Your task to perform on an android device: turn off location history Image 0: 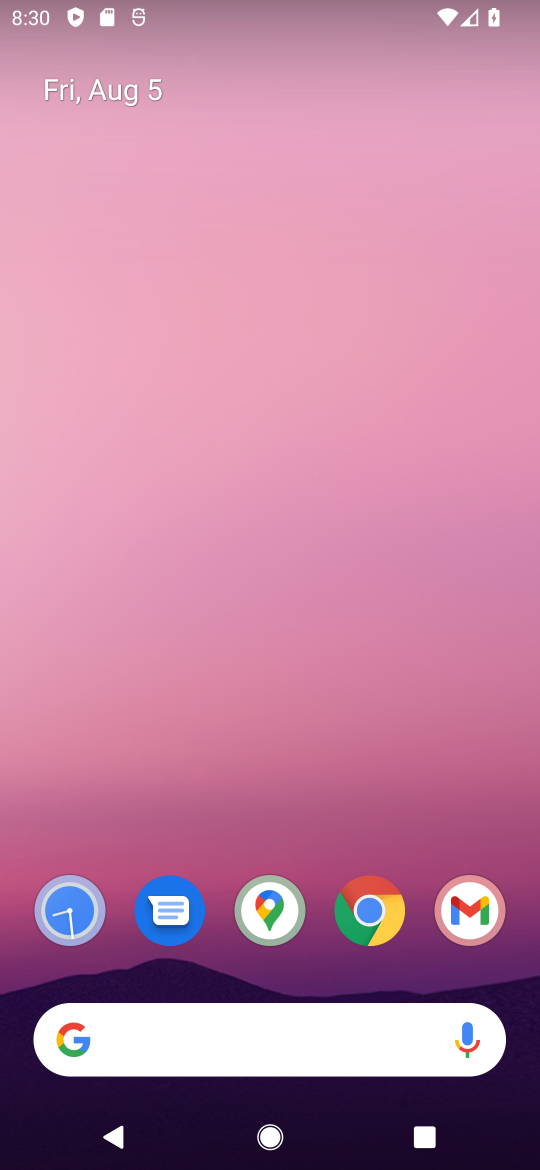
Step 0: drag from (252, 1026) to (529, 88)
Your task to perform on an android device: turn off location history Image 1: 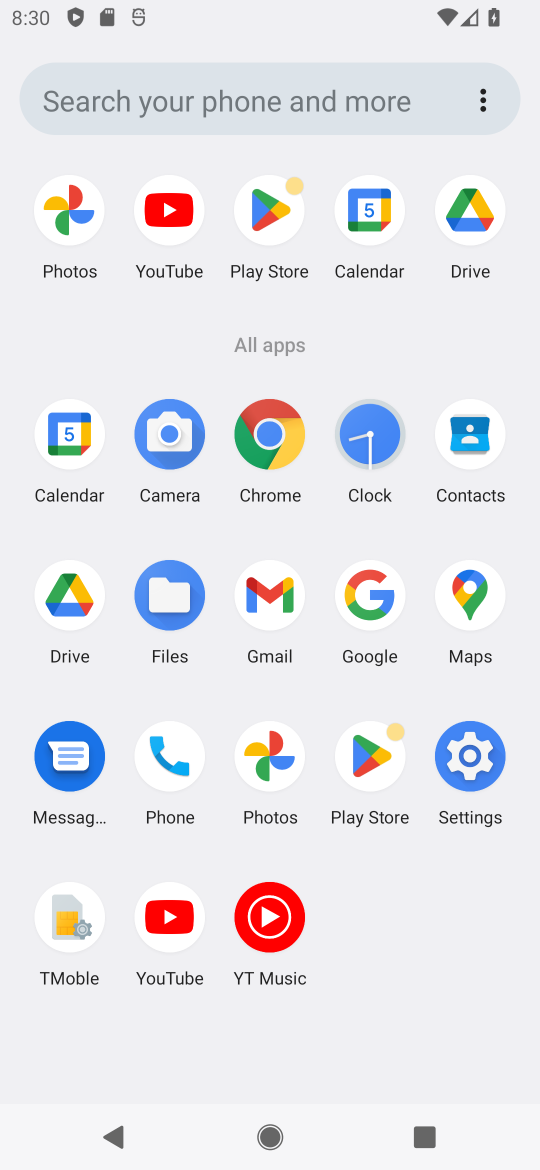
Step 1: click (486, 773)
Your task to perform on an android device: turn off location history Image 2: 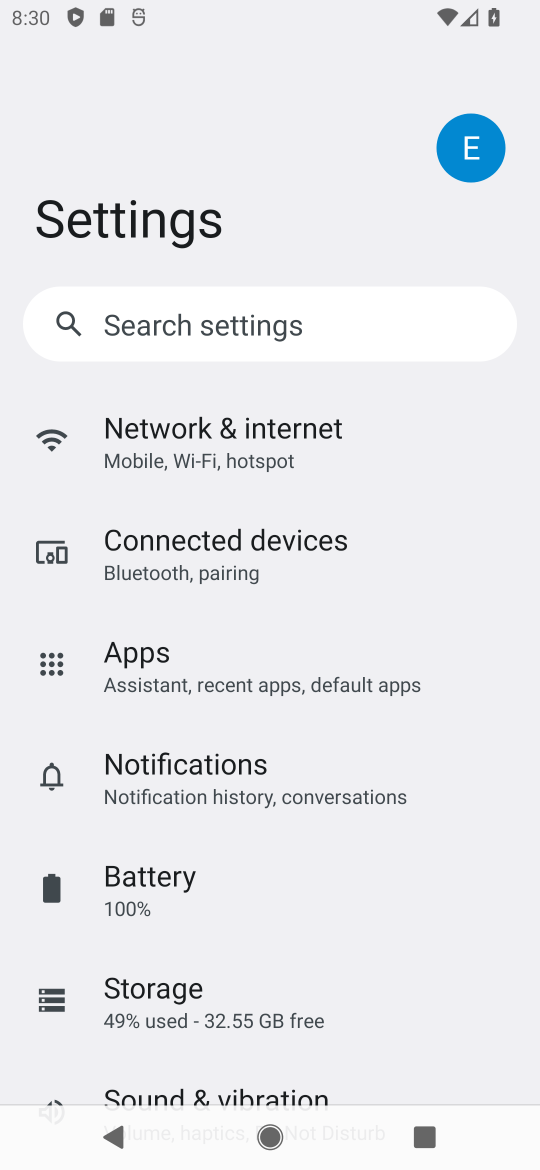
Step 2: drag from (317, 781) to (488, 109)
Your task to perform on an android device: turn off location history Image 3: 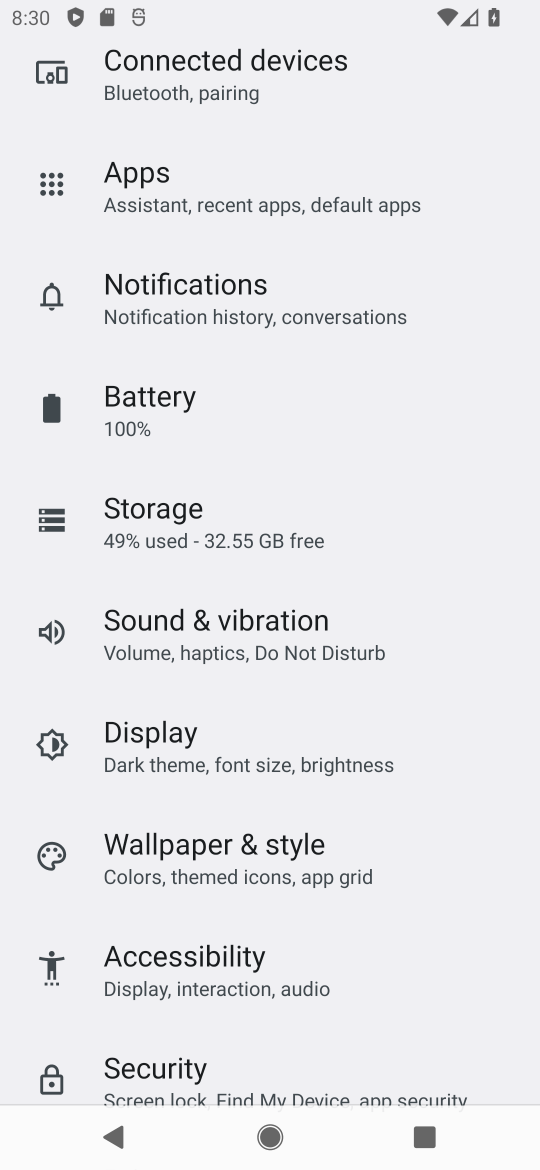
Step 3: drag from (370, 1025) to (478, 147)
Your task to perform on an android device: turn off location history Image 4: 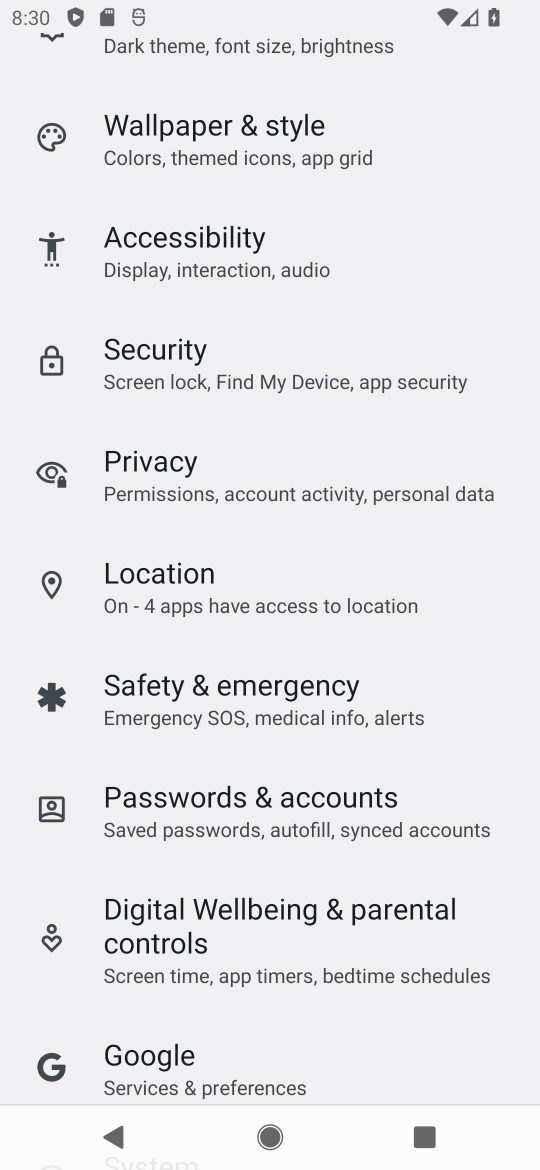
Step 4: click (189, 598)
Your task to perform on an android device: turn off location history Image 5: 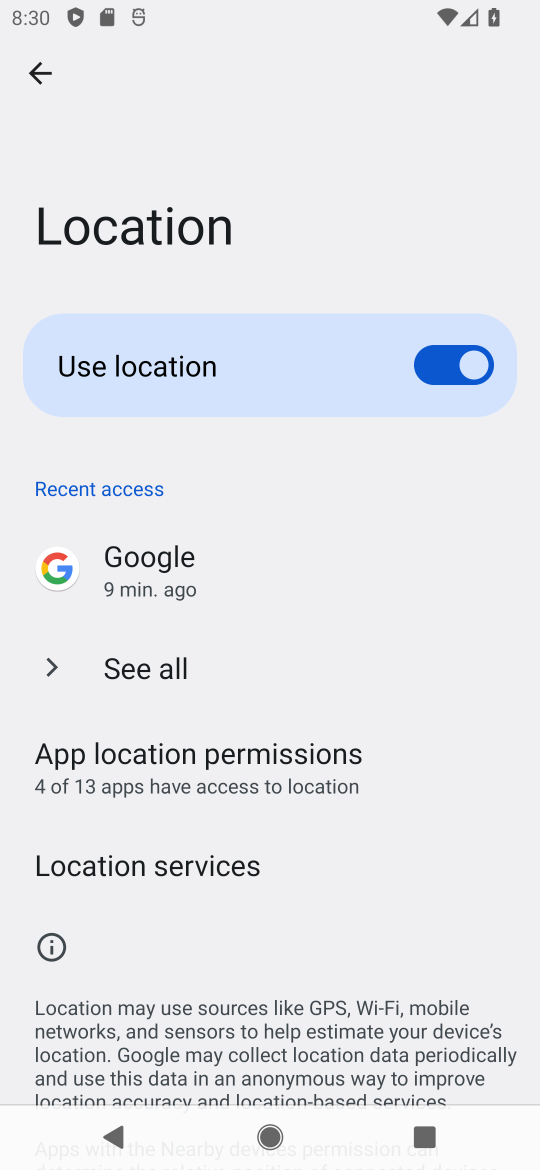
Step 5: click (442, 369)
Your task to perform on an android device: turn off location history Image 6: 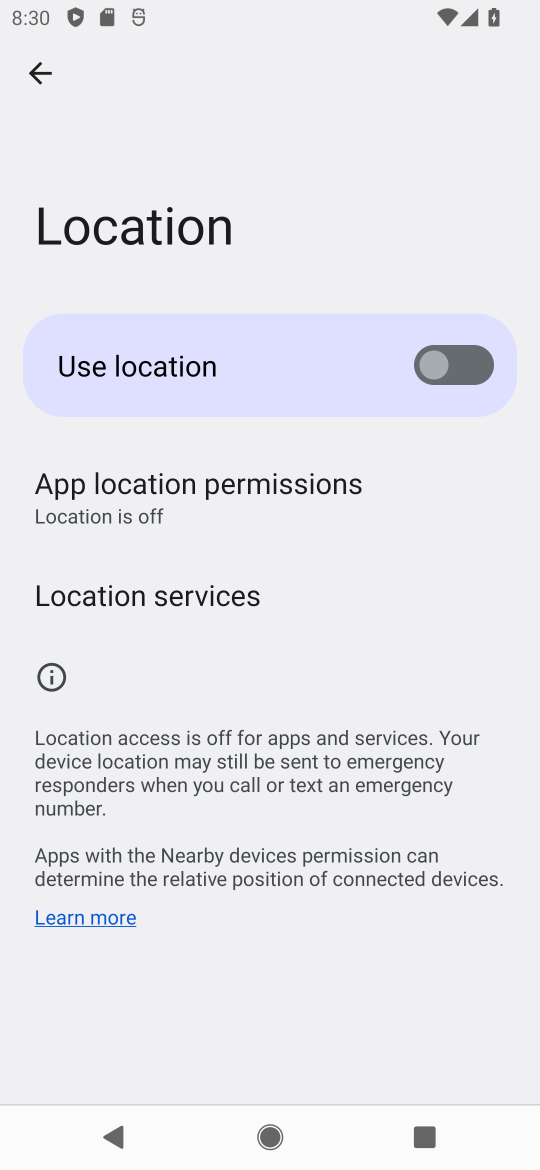
Step 6: task complete